Your task to perform on an android device: Open calendar and show me the second week of next month Image 0: 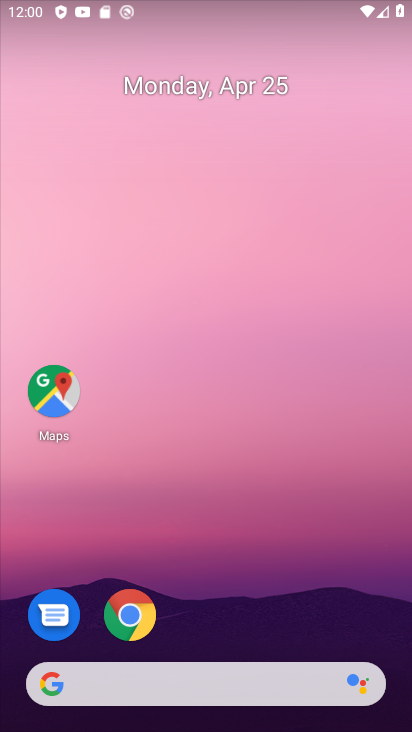
Step 0: drag from (360, 616) to (369, 142)
Your task to perform on an android device: Open calendar and show me the second week of next month Image 1: 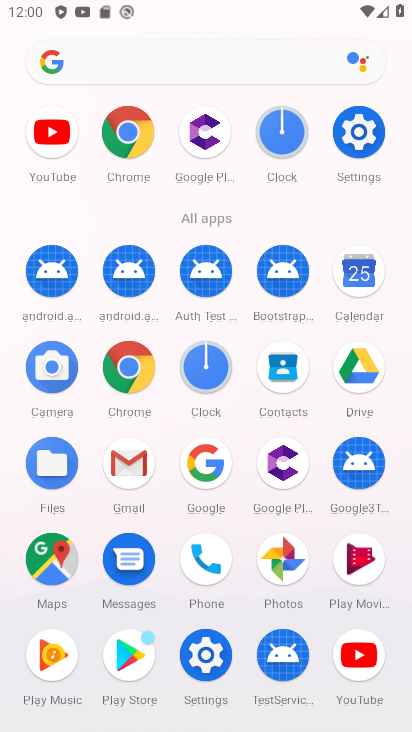
Step 1: click (361, 280)
Your task to perform on an android device: Open calendar and show me the second week of next month Image 2: 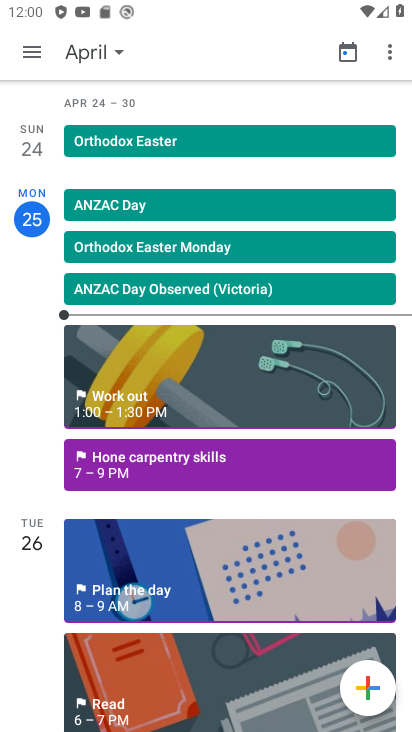
Step 2: click (115, 48)
Your task to perform on an android device: Open calendar and show me the second week of next month Image 3: 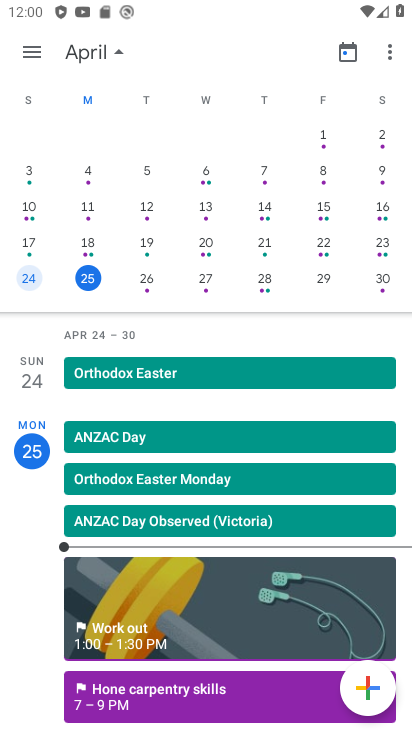
Step 3: drag from (358, 160) to (0, 154)
Your task to perform on an android device: Open calendar and show me the second week of next month Image 4: 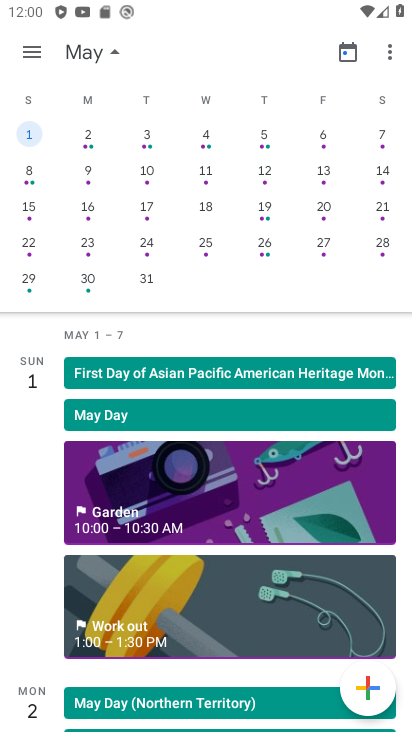
Step 4: click (146, 170)
Your task to perform on an android device: Open calendar and show me the second week of next month Image 5: 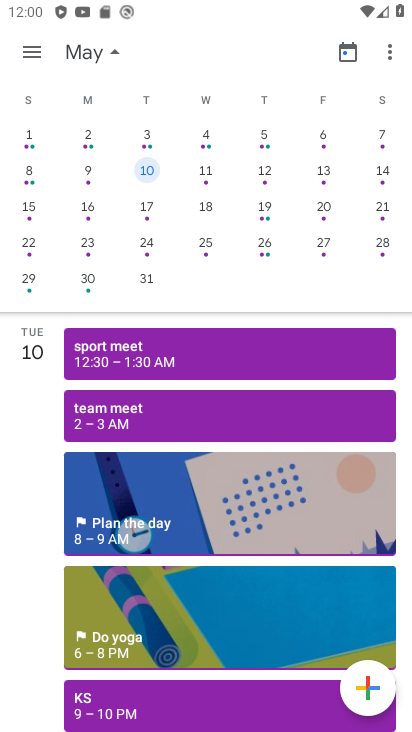
Step 5: task complete